Your task to perform on an android device: change keyboard looks Image 0: 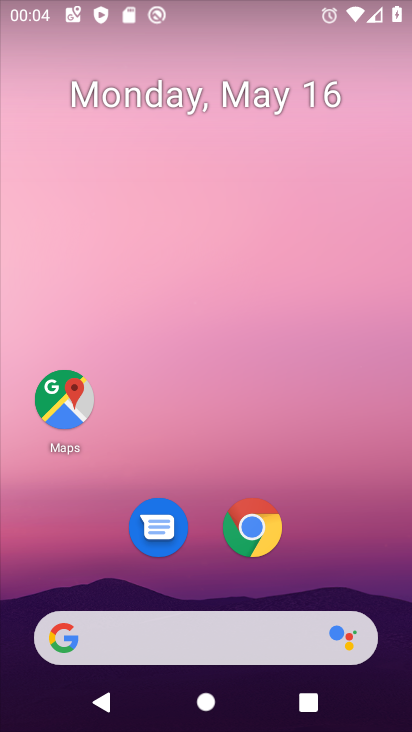
Step 0: drag from (374, 549) to (109, 2)
Your task to perform on an android device: change keyboard looks Image 1: 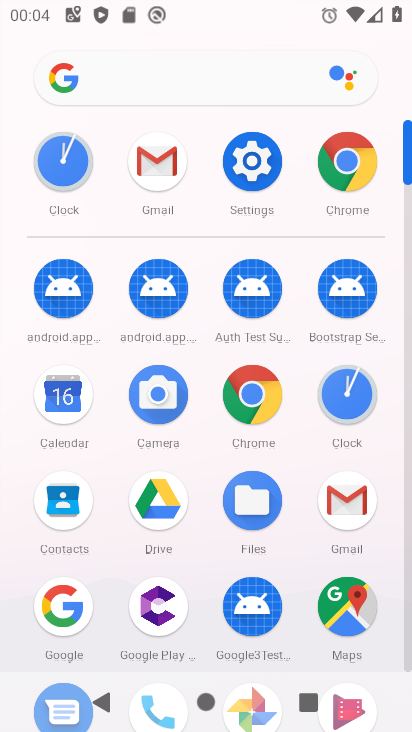
Step 1: click (239, 186)
Your task to perform on an android device: change keyboard looks Image 2: 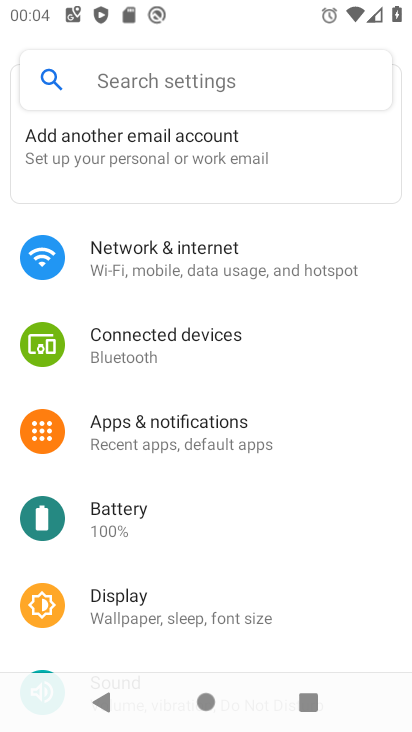
Step 2: drag from (247, 488) to (209, 327)
Your task to perform on an android device: change keyboard looks Image 3: 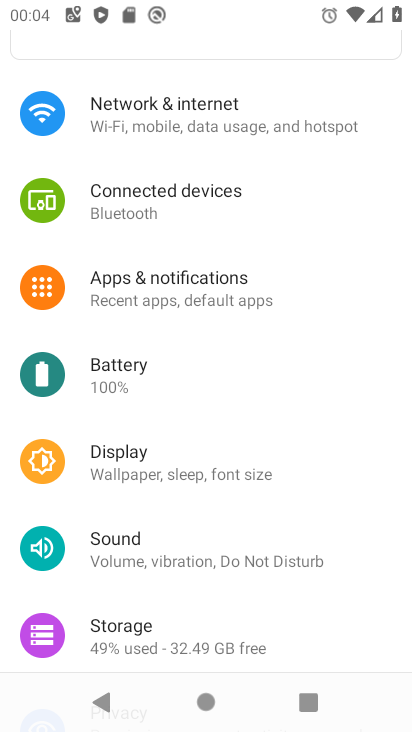
Step 3: drag from (283, 582) to (227, 339)
Your task to perform on an android device: change keyboard looks Image 4: 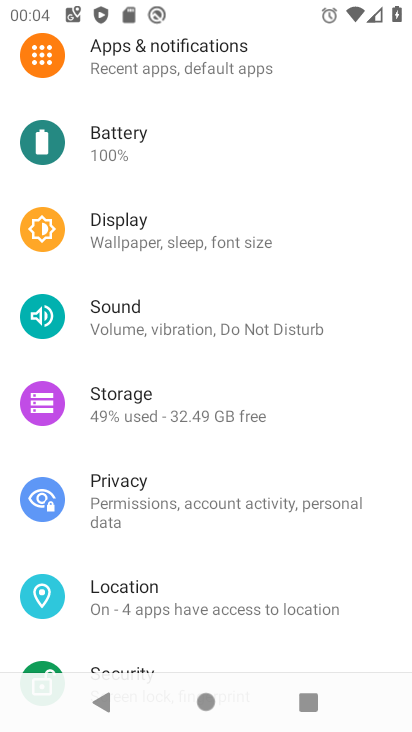
Step 4: drag from (237, 601) to (133, 228)
Your task to perform on an android device: change keyboard looks Image 5: 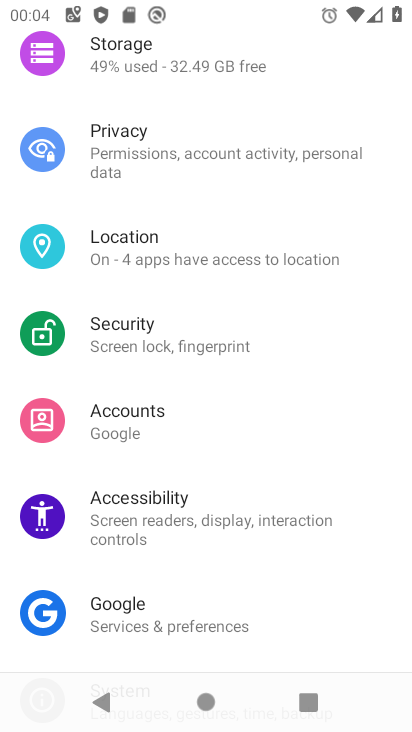
Step 5: drag from (189, 513) to (166, 358)
Your task to perform on an android device: change keyboard looks Image 6: 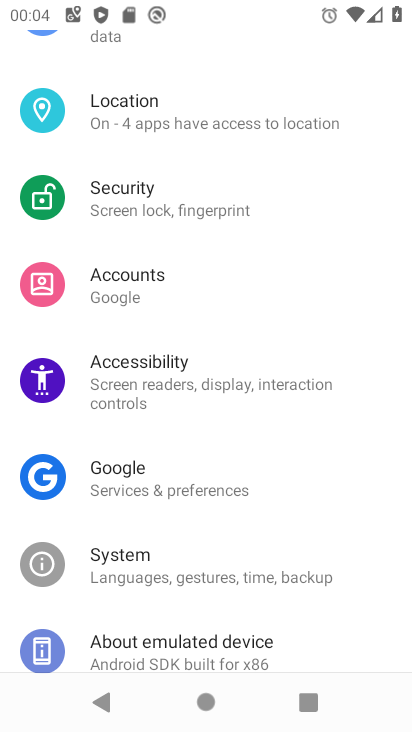
Step 6: click (185, 571)
Your task to perform on an android device: change keyboard looks Image 7: 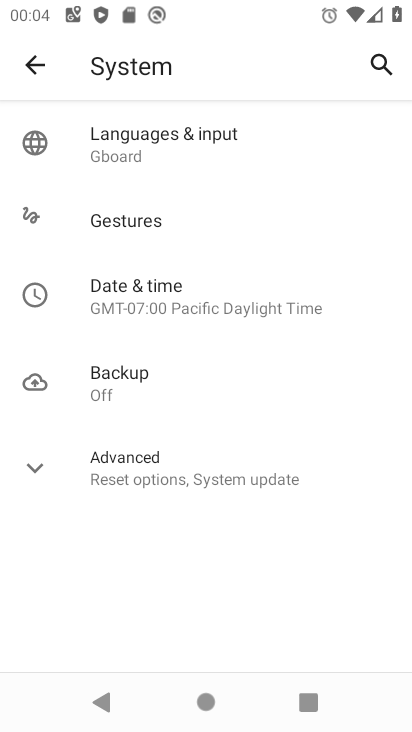
Step 7: click (156, 167)
Your task to perform on an android device: change keyboard looks Image 8: 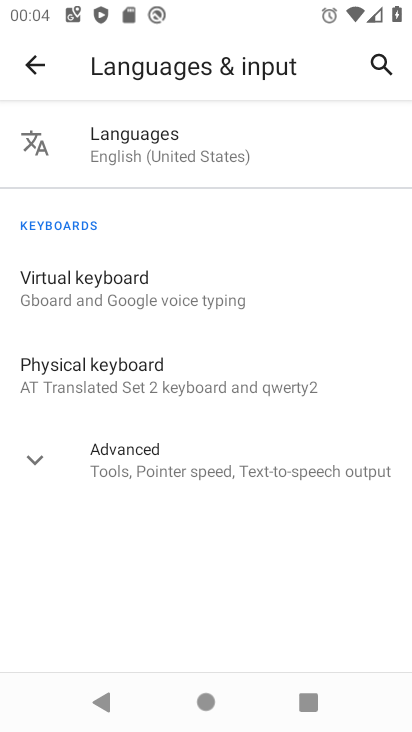
Step 8: click (142, 305)
Your task to perform on an android device: change keyboard looks Image 9: 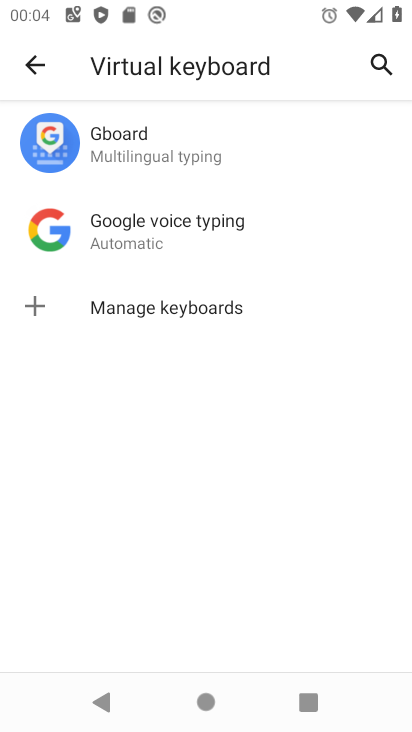
Step 9: click (142, 164)
Your task to perform on an android device: change keyboard looks Image 10: 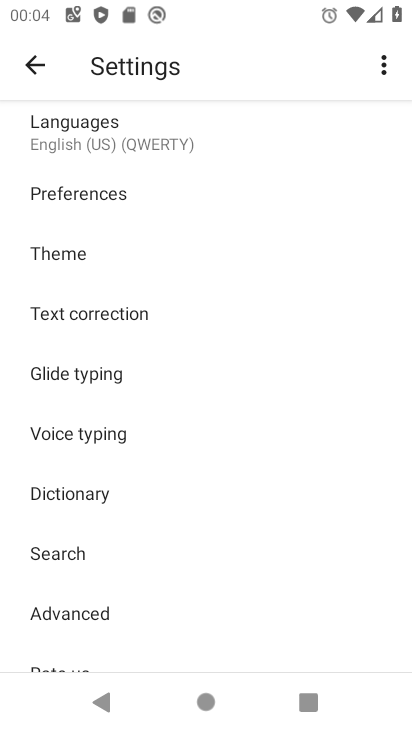
Step 10: click (128, 267)
Your task to perform on an android device: change keyboard looks Image 11: 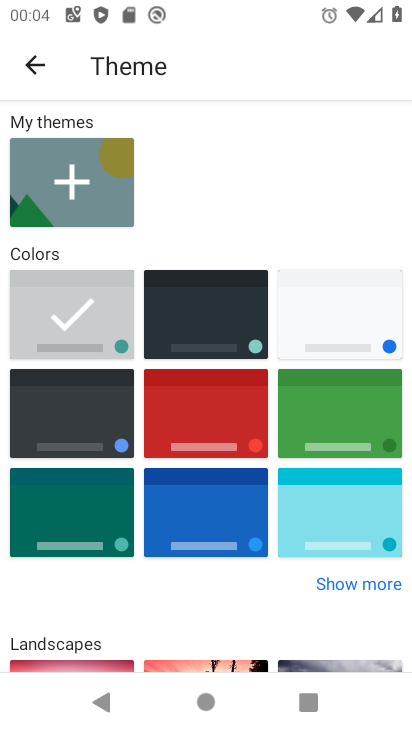
Step 11: click (205, 308)
Your task to perform on an android device: change keyboard looks Image 12: 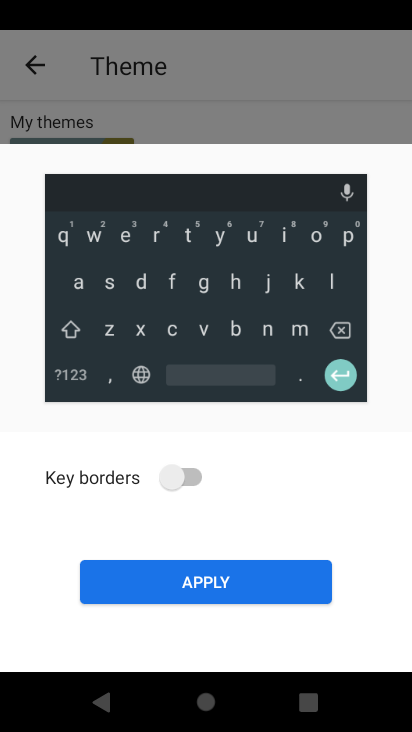
Step 12: click (209, 581)
Your task to perform on an android device: change keyboard looks Image 13: 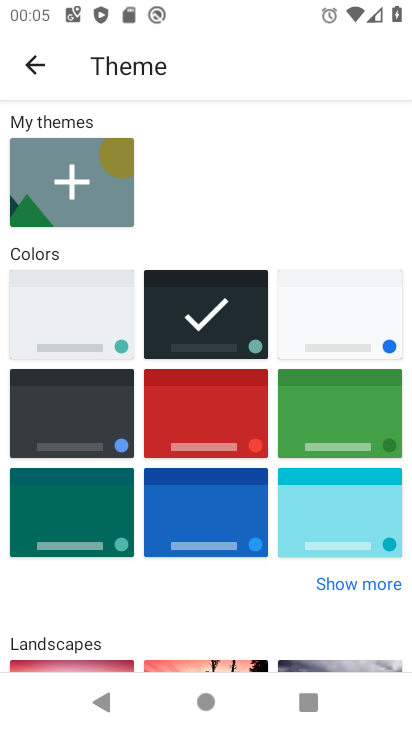
Step 13: task complete